Your task to perform on an android device: Go to eBay Image 0: 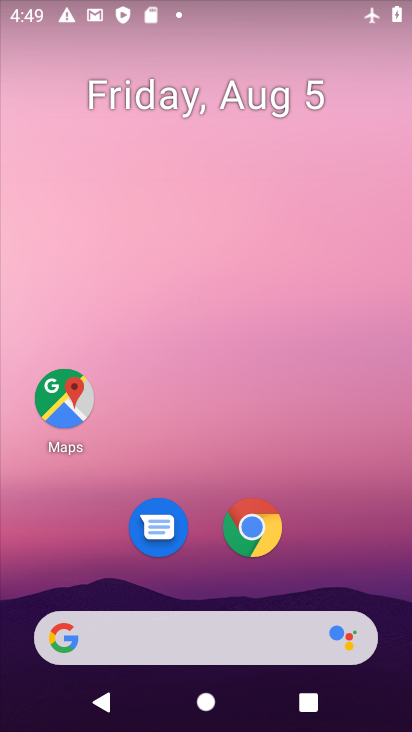
Step 0: drag from (187, 605) to (199, 258)
Your task to perform on an android device: Go to eBay Image 1: 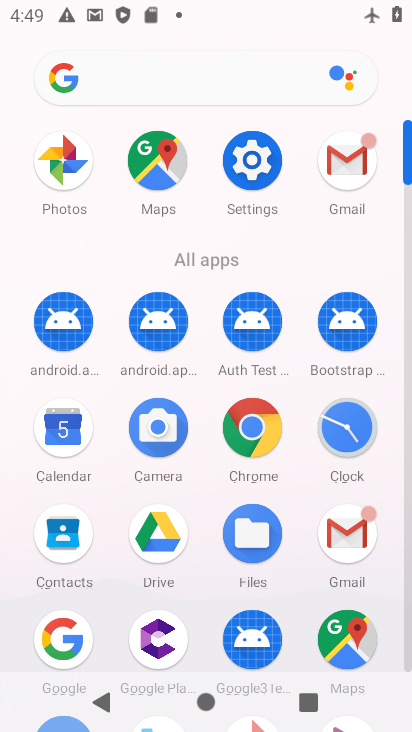
Step 1: drag from (220, 601) to (181, 176)
Your task to perform on an android device: Go to eBay Image 2: 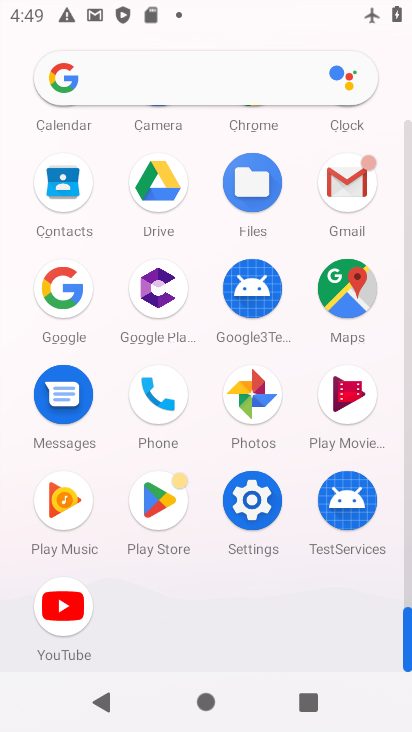
Step 2: click (150, 73)
Your task to perform on an android device: Go to eBay Image 3: 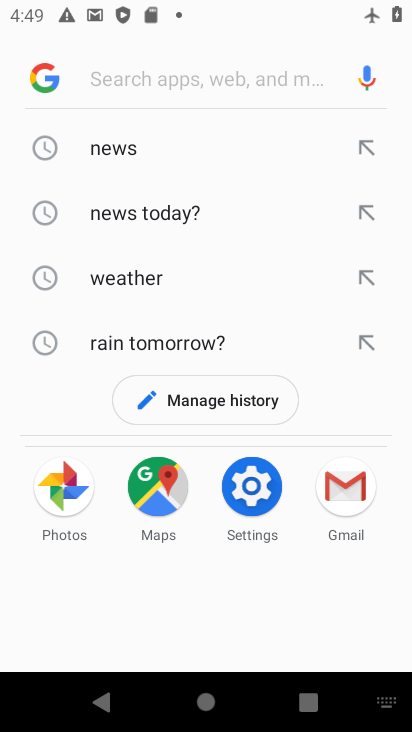
Step 3: click (186, 83)
Your task to perform on an android device: Go to eBay Image 4: 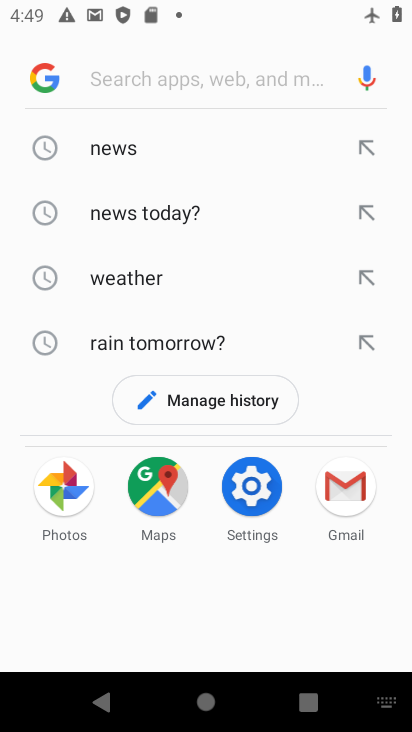
Step 4: type "eBay"
Your task to perform on an android device: Go to eBay Image 5: 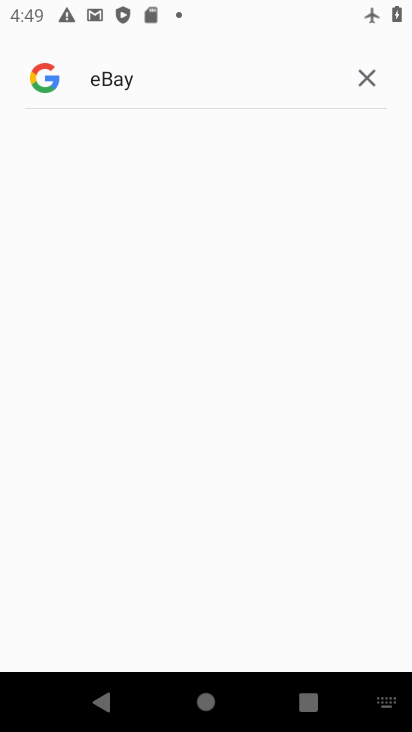
Step 5: click (128, 137)
Your task to perform on an android device: Go to eBay Image 6: 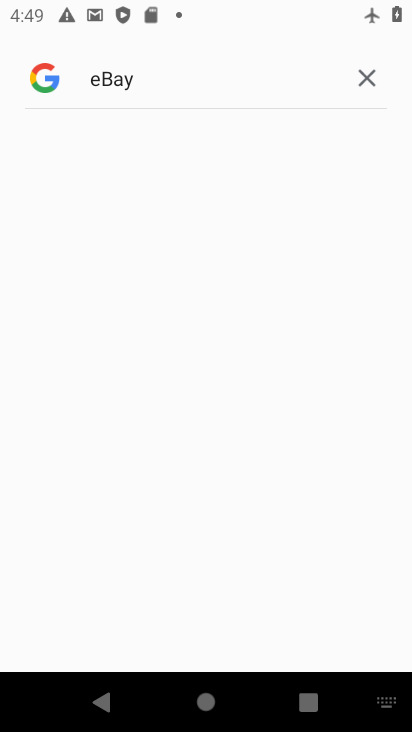
Step 6: click (128, 137)
Your task to perform on an android device: Go to eBay Image 7: 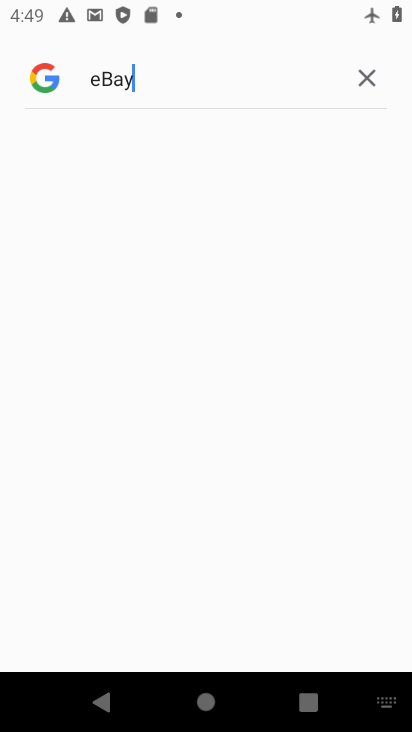
Step 7: click (128, 138)
Your task to perform on an android device: Go to eBay Image 8: 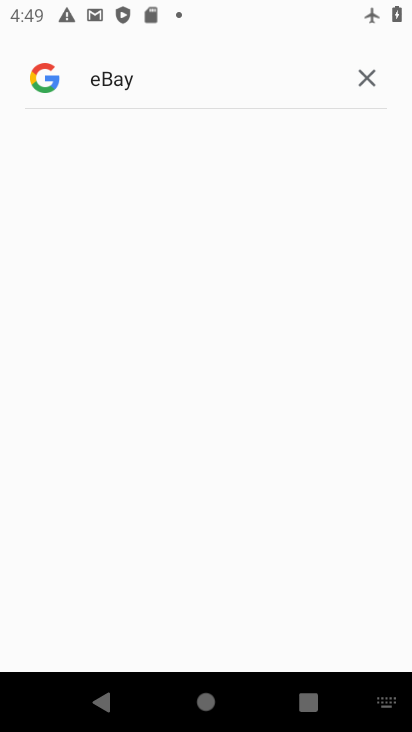
Step 8: click (169, 128)
Your task to perform on an android device: Go to eBay Image 9: 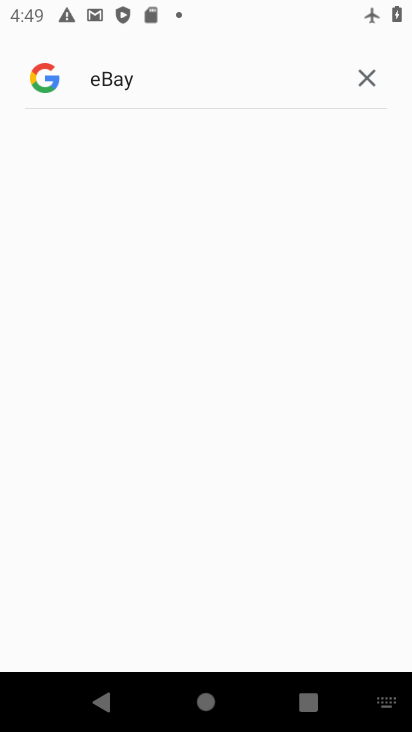
Step 9: click (168, 130)
Your task to perform on an android device: Go to eBay Image 10: 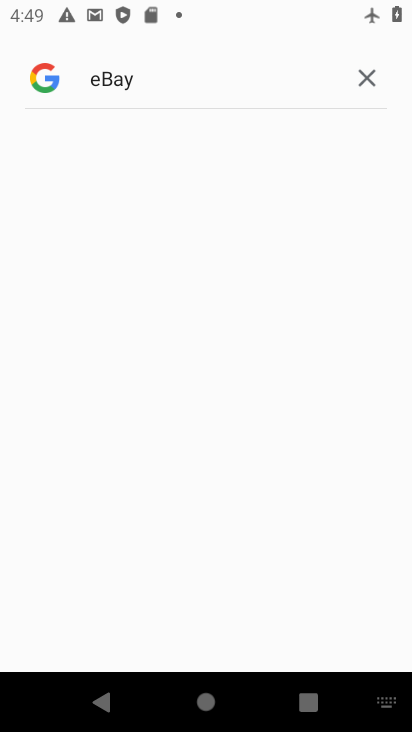
Step 10: click (168, 131)
Your task to perform on an android device: Go to eBay Image 11: 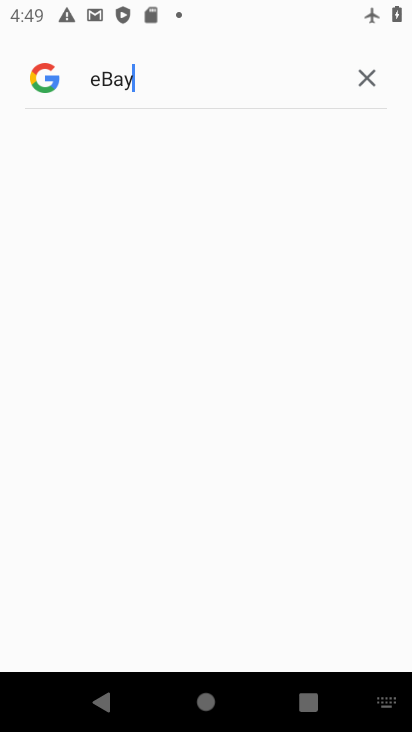
Step 11: click (168, 131)
Your task to perform on an android device: Go to eBay Image 12: 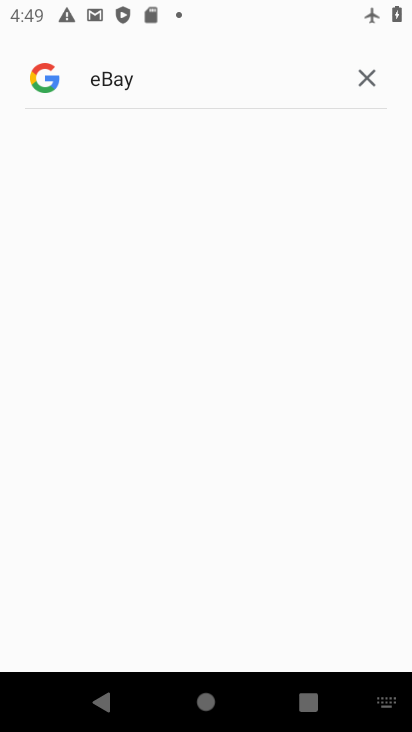
Step 12: click (168, 131)
Your task to perform on an android device: Go to eBay Image 13: 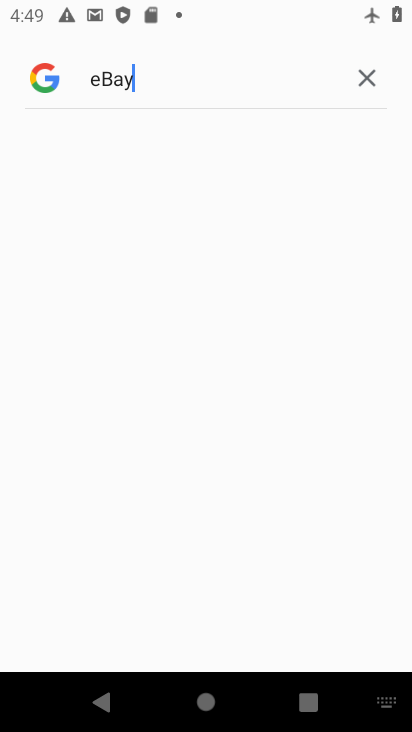
Step 13: click (167, 135)
Your task to perform on an android device: Go to eBay Image 14: 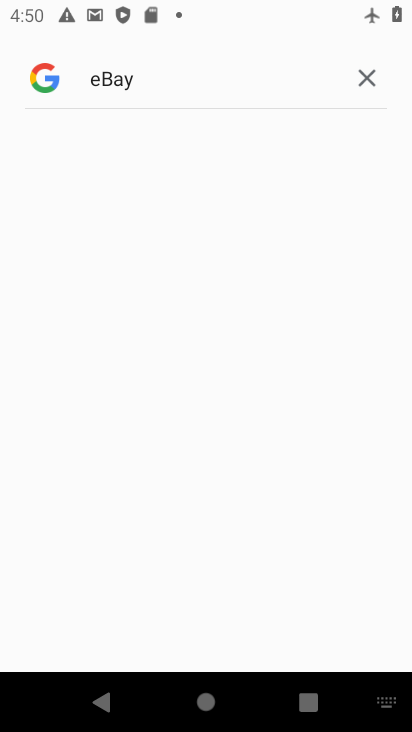
Step 14: click (166, 136)
Your task to perform on an android device: Go to eBay Image 15: 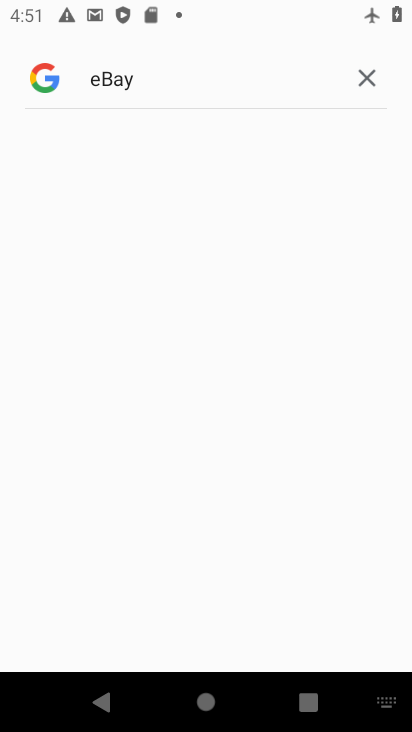
Step 15: drag from (191, 219) to (258, 645)
Your task to perform on an android device: Go to eBay Image 16: 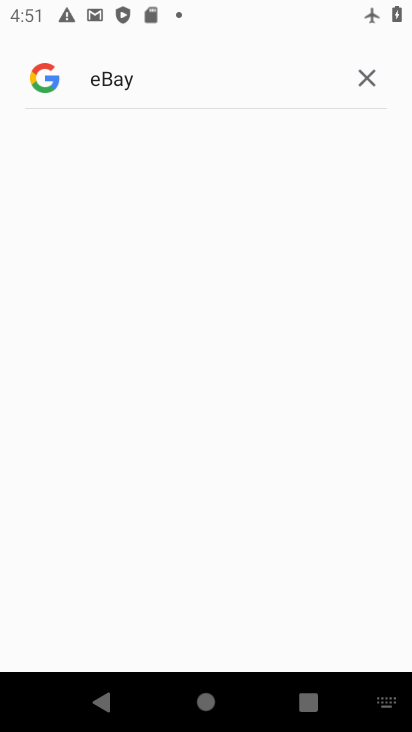
Step 16: drag from (128, 187) to (264, 485)
Your task to perform on an android device: Go to eBay Image 17: 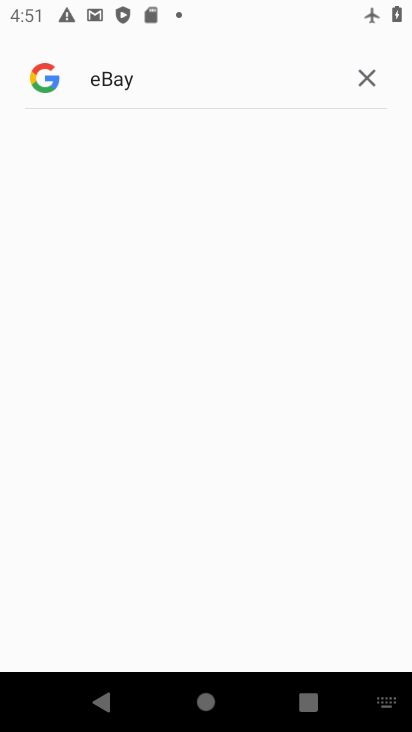
Step 17: drag from (156, 502) to (163, 271)
Your task to perform on an android device: Go to eBay Image 18: 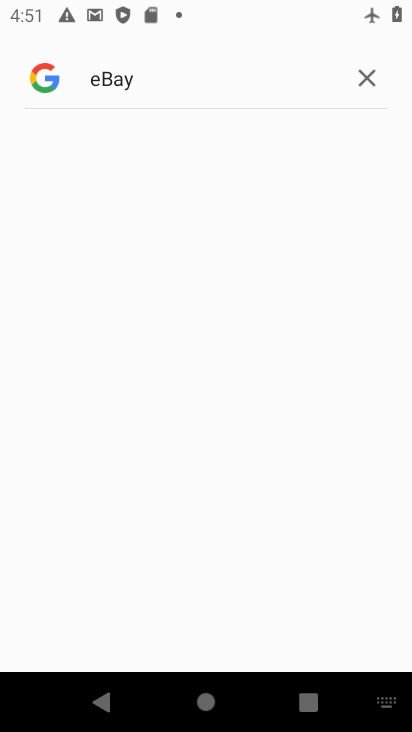
Step 18: click (171, 147)
Your task to perform on an android device: Go to eBay Image 19: 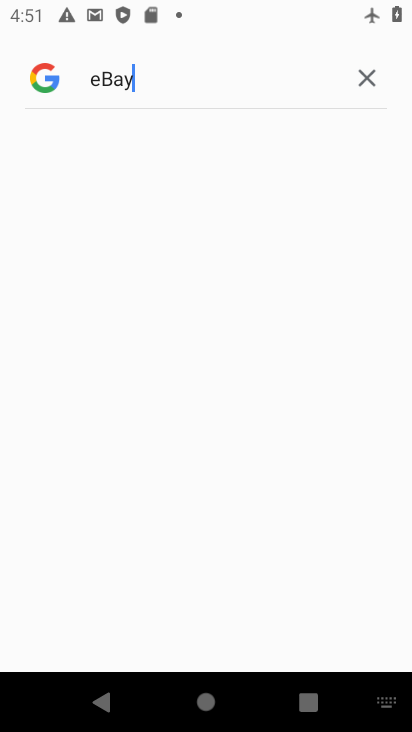
Step 19: click (178, 170)
Your task to perform on an android device: Go to eBay Image 20: 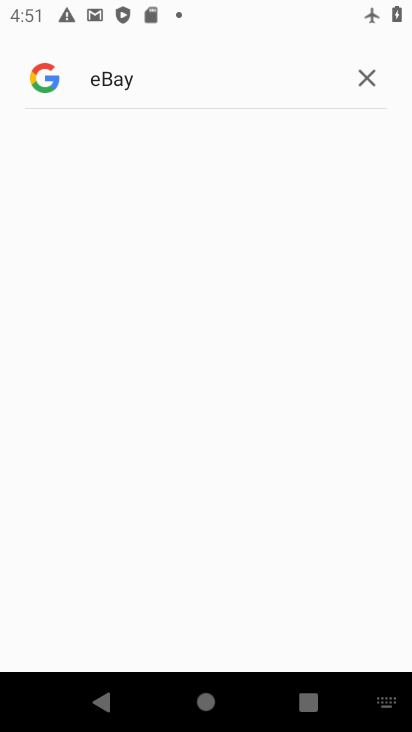
Step 20: click (178, 170)
Your task to perform on an android device: Go to eBay Image 21: 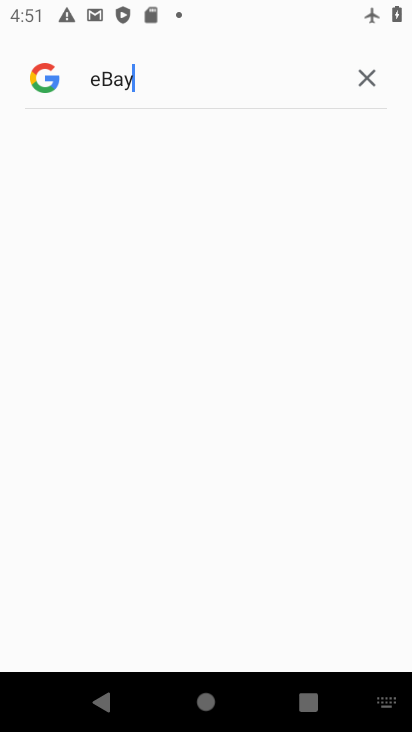
Step 21: drag from (178, 170) to (290, 511)
Your task to perform on an android device: Go to eBay Image 22: 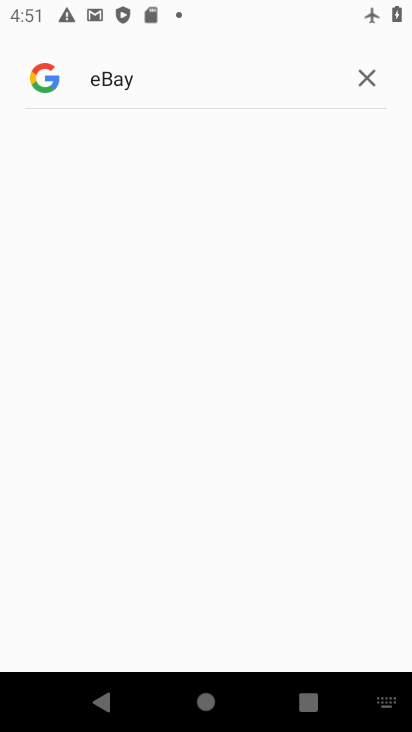
Step 22: drag from (194, 618) to (217, 282)
Your task to perform on an android device: Go to eBay Image 23: 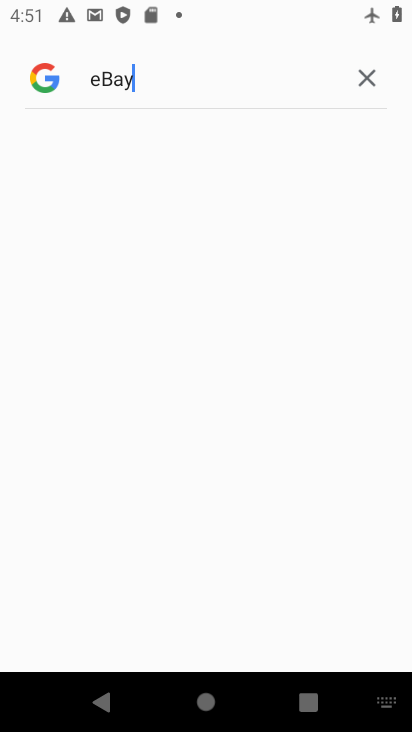
Step 23: click (185, 174)
Your task to perform on an android device: Go to eBay Image 24: 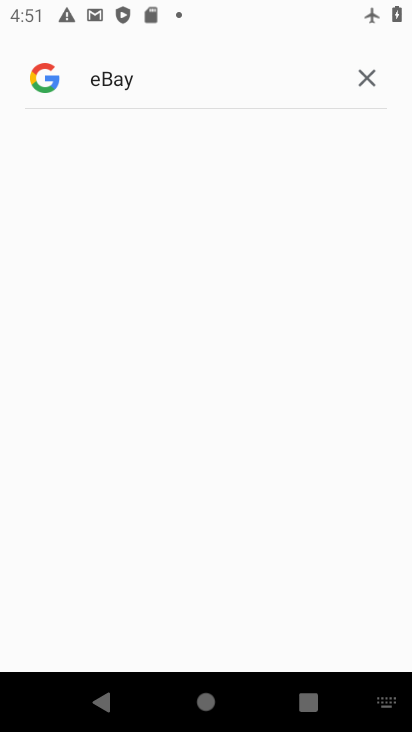
Step 24: click (186, 157)
Your task to perform on an android device: Go to eBay Image 25: 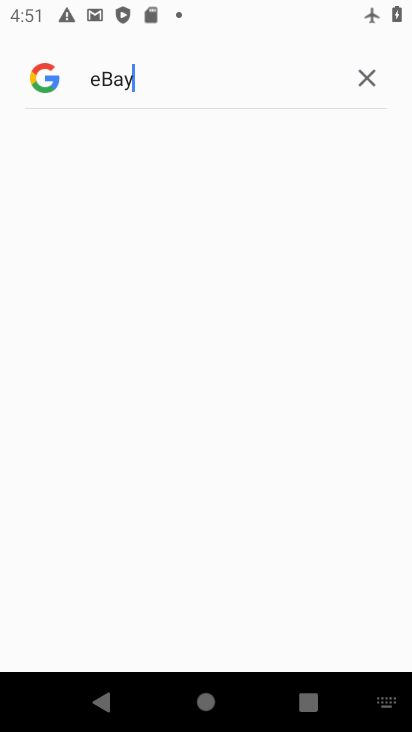
Step 25: click (188, 153)
Your task to perform on an android device: Go to eBay Image 26: 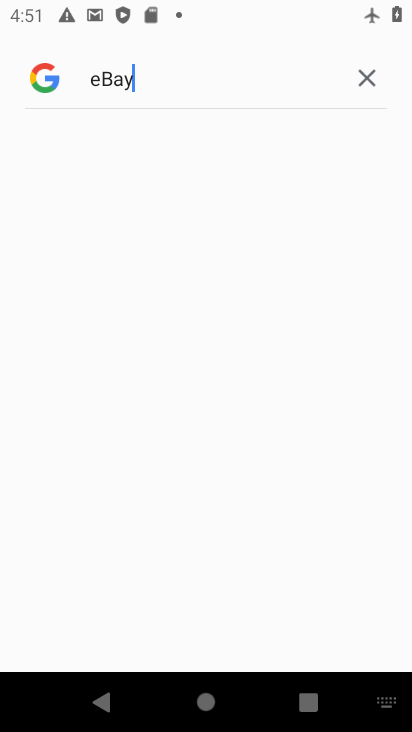
Step 26: click (188, 153)
Your task to perform on an android device: Go to eBay Image 27: 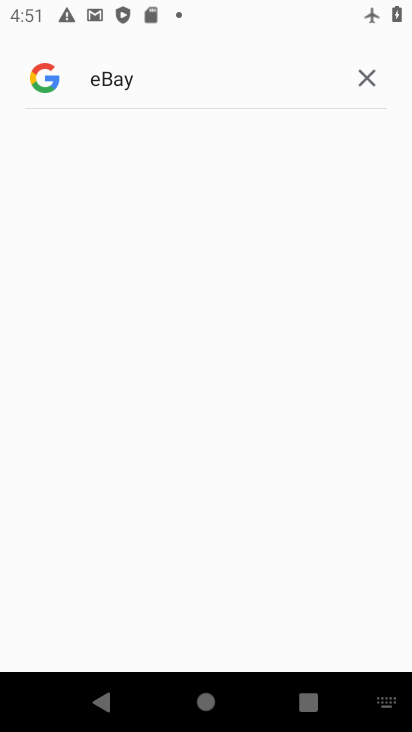
Step 27: click (182, 137)
Your task to perform on an android device: Go to eBay Image 28: 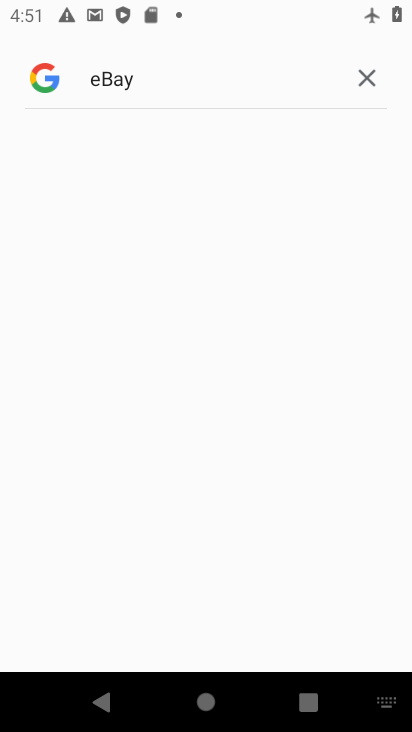
Step 28: click (115, 117)
Your task to perform on an android device: Go to eBay Image 29: 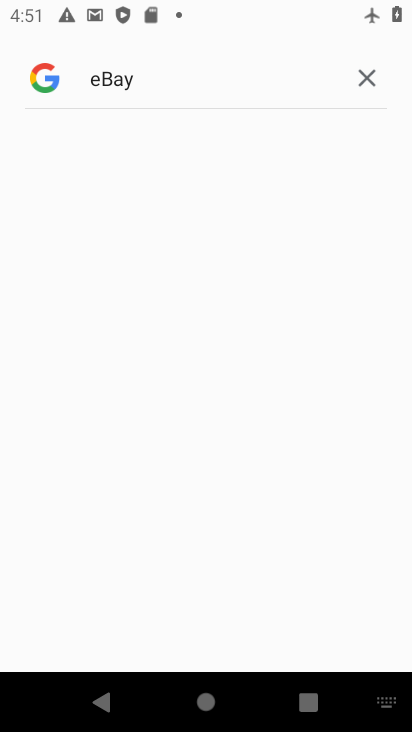
Step 29: click (114, 118)
Your task to perform on an android device: Go to eBay Image 30: 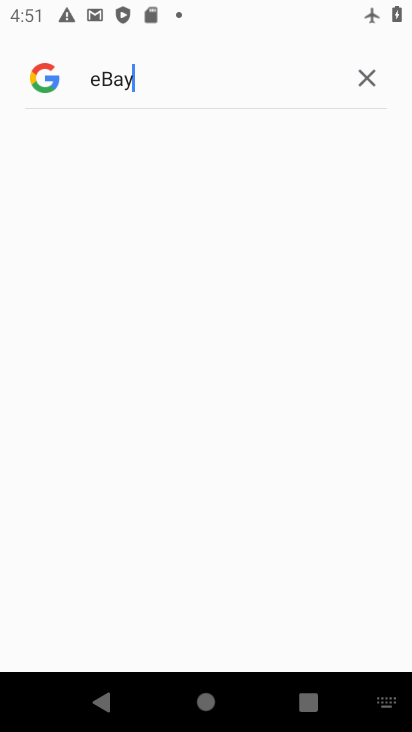
Step 30: click (114, 118)
Your task to perform on an android device: Go to eBay Image 31: 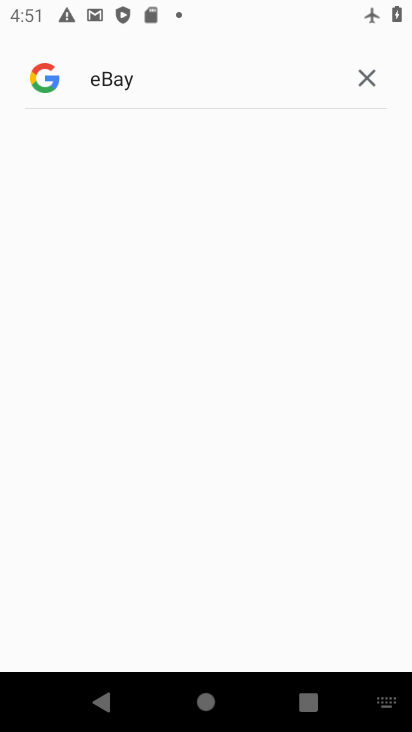
Step 31: click (114, 118)
Your task to perform on an android device: Go to eBay Image 32: 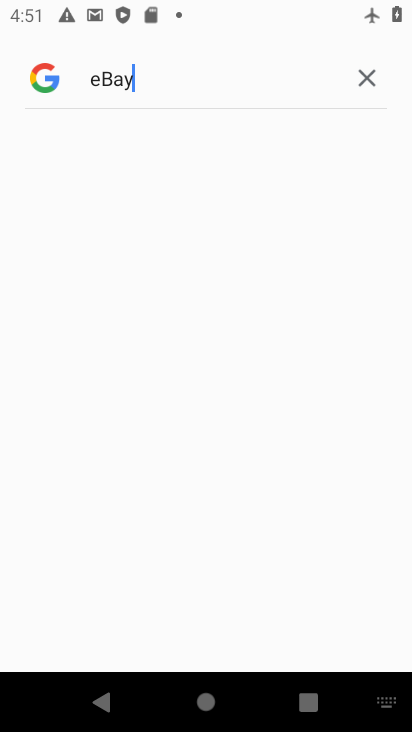
Step 32: click (172, 154)
Your task to perform on an android device: Go to eBay Image 33: 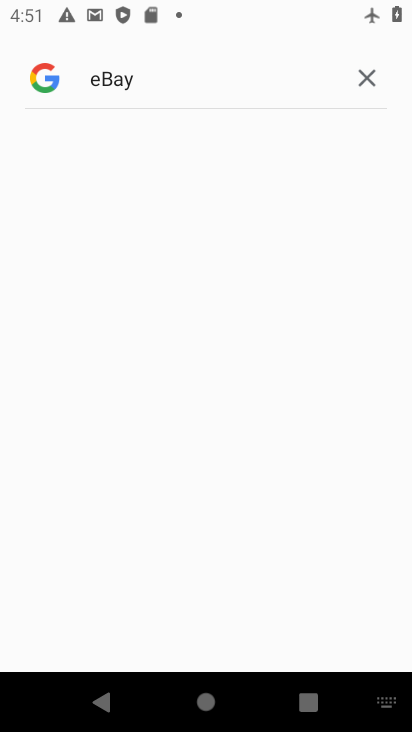
Step 33: click (162, 146)
Your task to perform on an android device: Go to eBay Image 34: 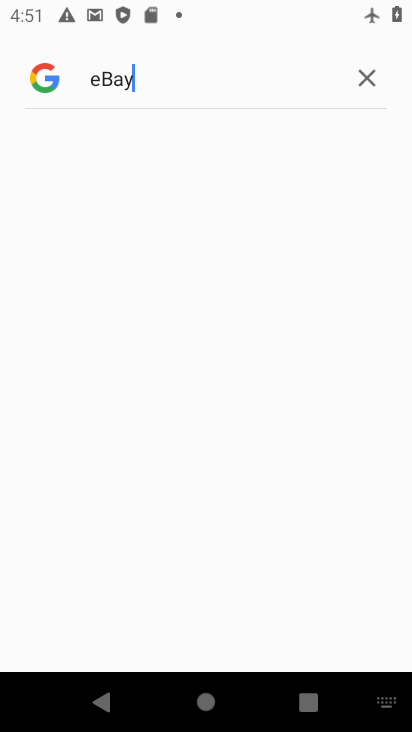
Step 34: click (156, 142)
Your task to perform on an android device: Go to eBay Image 35: 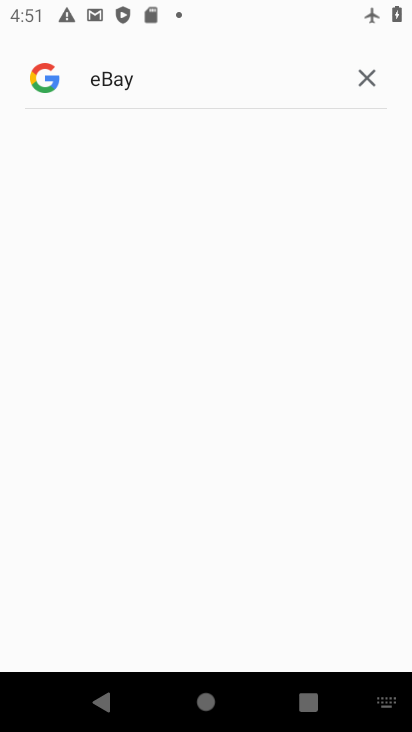
Step 35: click (137, 136)
Your task to perform on an android device: Go to eBay Image 36: 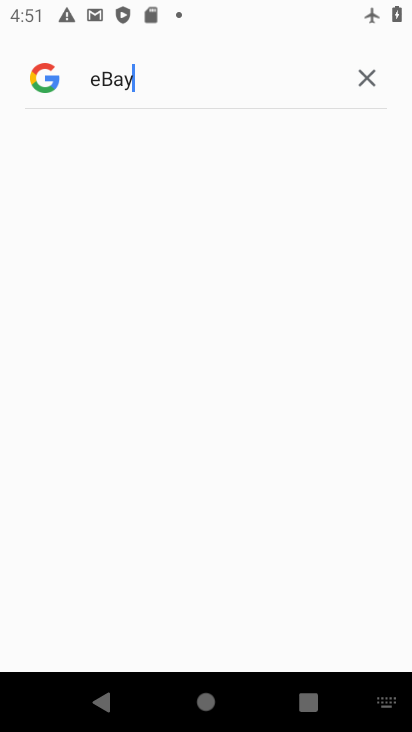
Step 36: click (137, 136)
Your task to perform on an android device: Go to eBay Image 37: 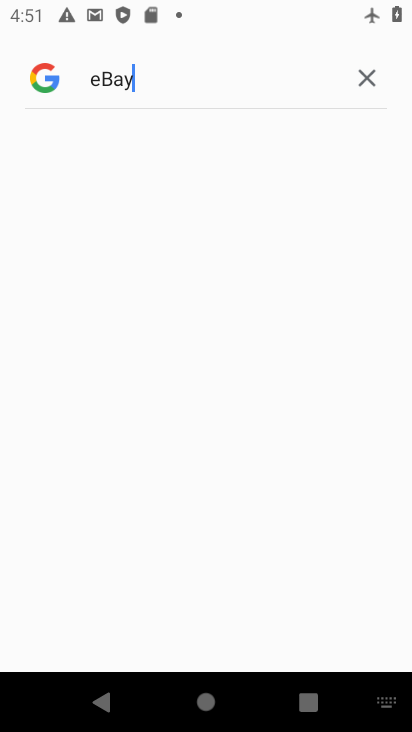
Step 37: click (137, 136)
Your task to perform on an android device: Go to eBay Image 38: 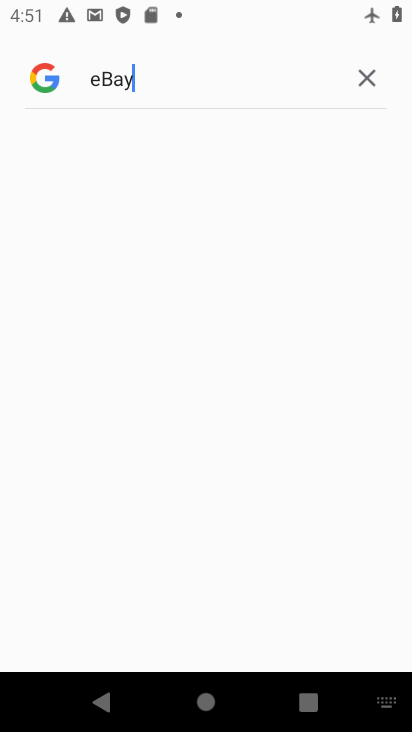
Step 38: click (129, 83)
Your task to perform on an android device: Go to eBay Image 39: 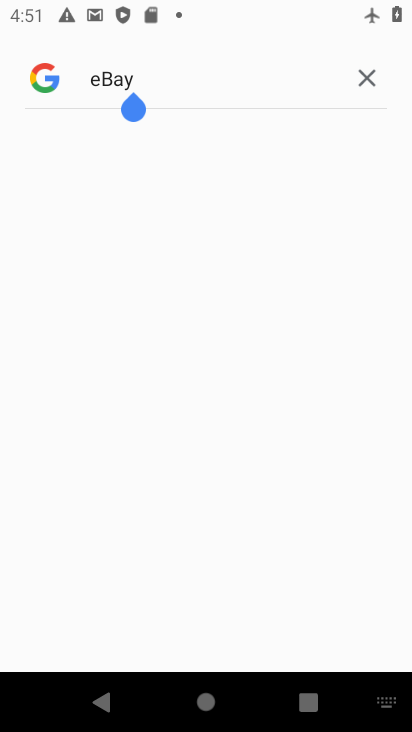
Step 39: click (170, 160)
Your task to perform on an android device: Go to eBay Image 40: 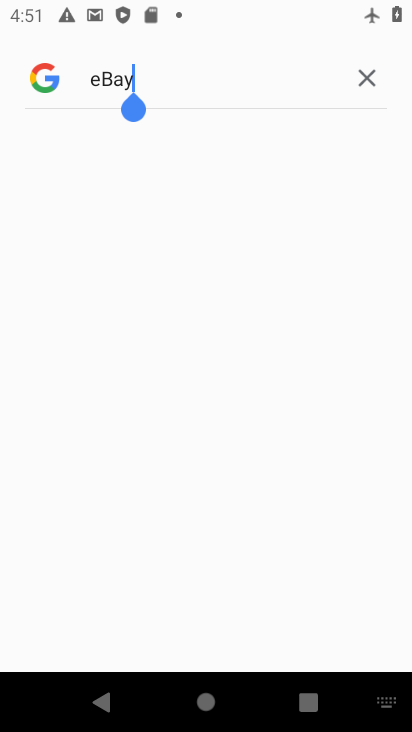
Step 40: click (170, 160)
Your task to perform on an android device: Go to eBay Image 41: 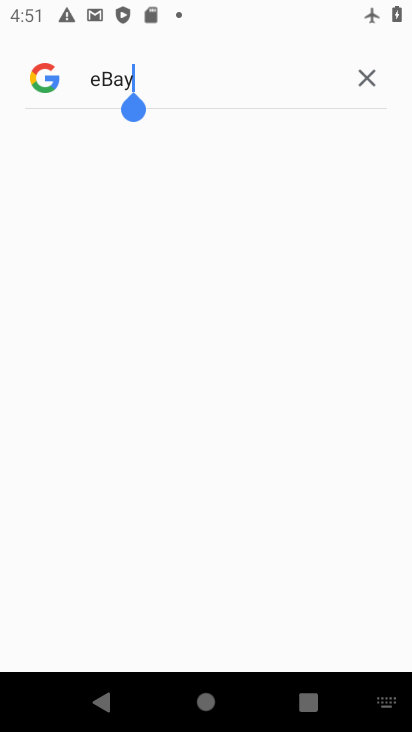
Step 41: click (152, 143)
Your task to perform on an android device: Go to eBay Image 42: 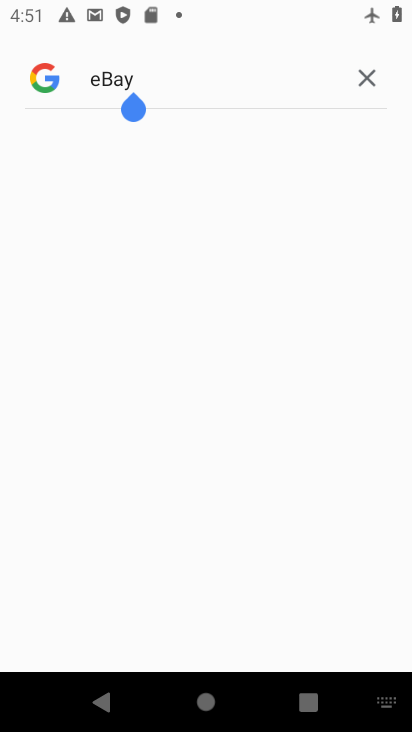
Step 42: click (151, 144)
Your task to perform on an android device: Go to eBay Image 43: 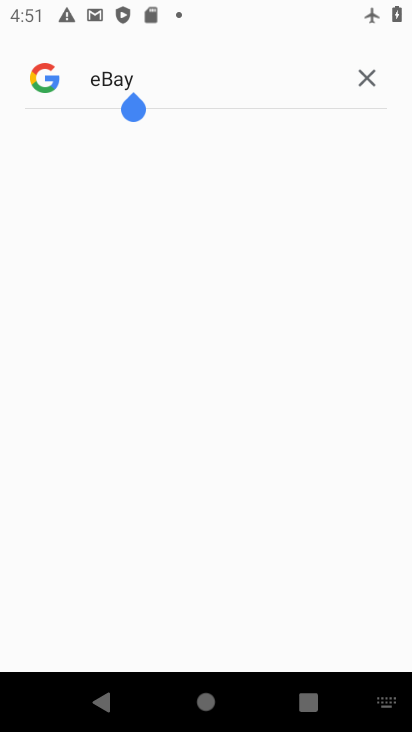
Step 43: click (151, 144)
Your task to perform on an android device: Go to eBay Image 44: 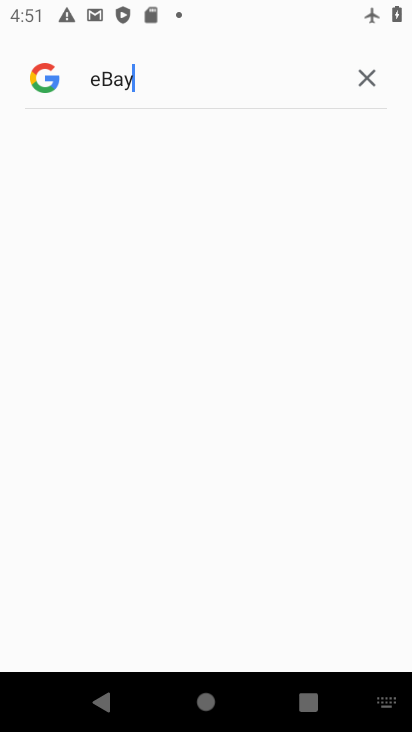
Step 44: click (360, 77)
Your task to perform on an android device: Go to eBay Image 45: 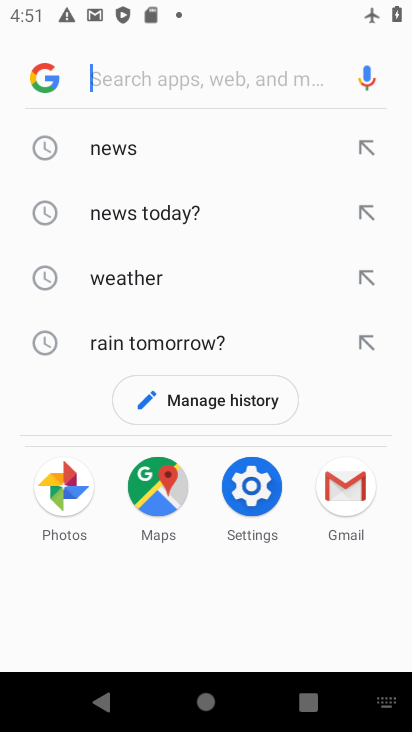
Step 45: click (181, 86)
Your task to perform on an android device: Go to eBay Image 46: 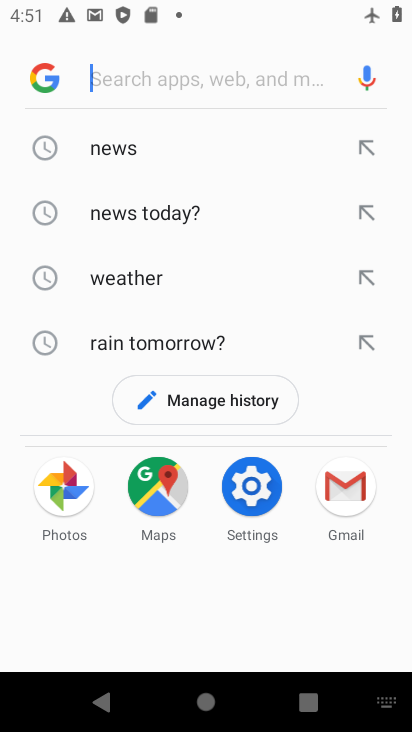
Step 46: type "eBay"
Your task to perform on an android device: Go to eBay Image 47: 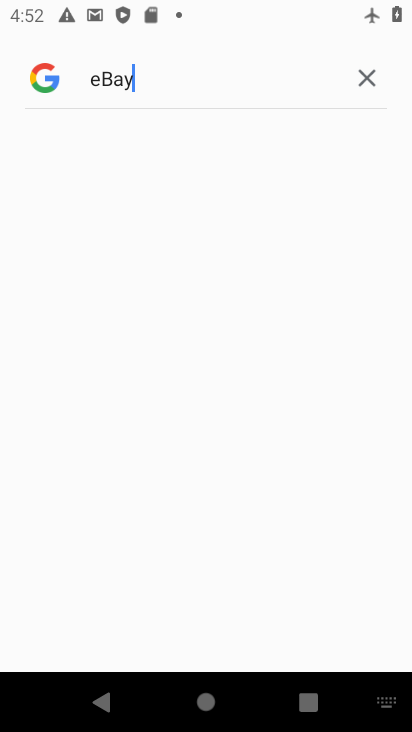
Step 47: click (120, 150)
Your task to perform on an android device: Go to eBay Image 48: 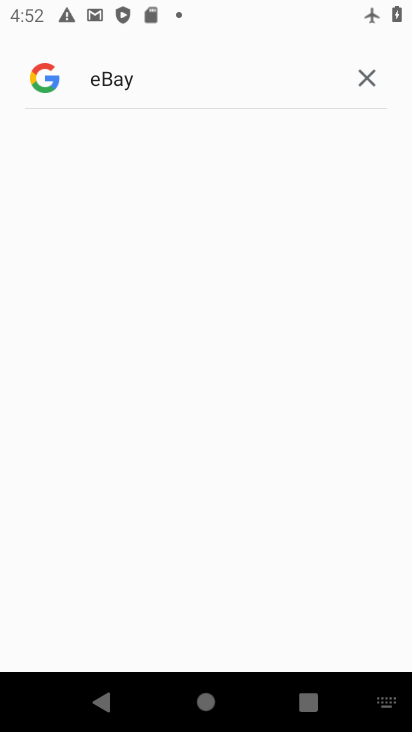
Step 48: click (120, 150)
Your task to perform on an android device: Go to eBay Image 49: 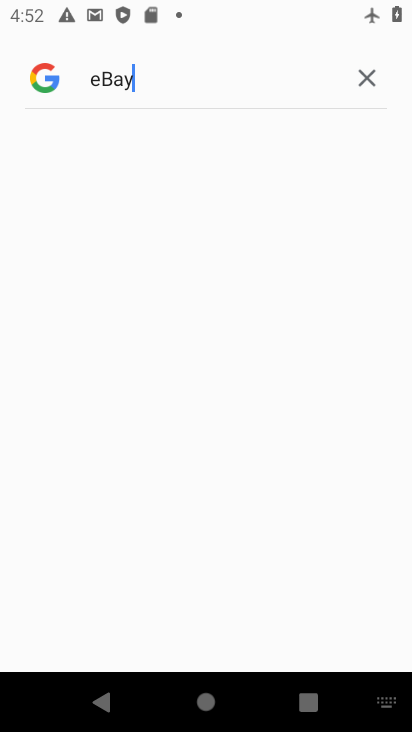
Step 49: click (120, 150)
Your task to perform on an android device: Go to eBay Image 50: 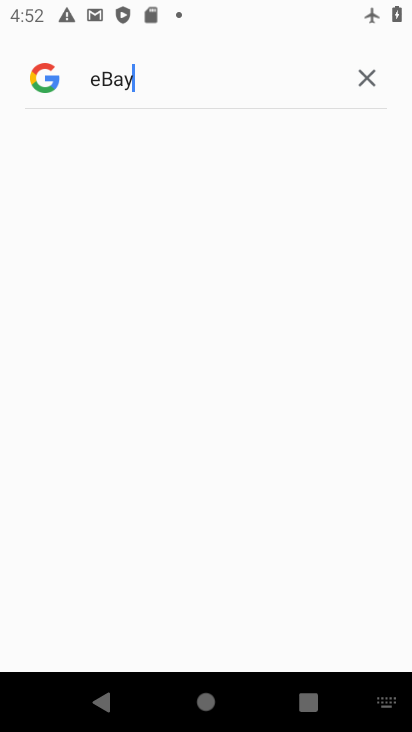
Step 50: click (119, 149)
Your task to perform on an android device: Go to eBay Image 51: 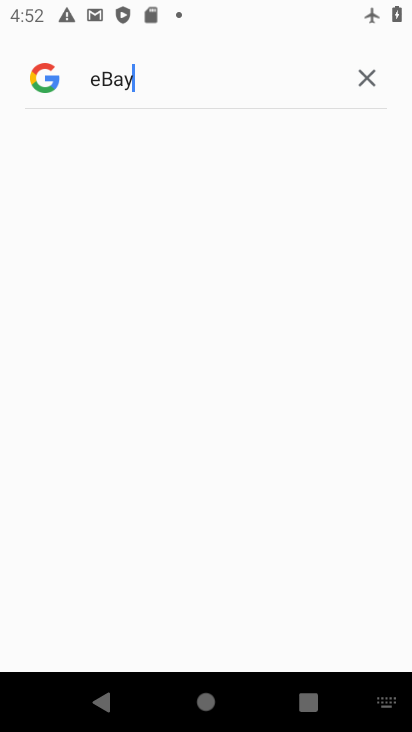
Step 51: click (115, 143)
Your task to perform on an android device: Go to eBay Image 52: 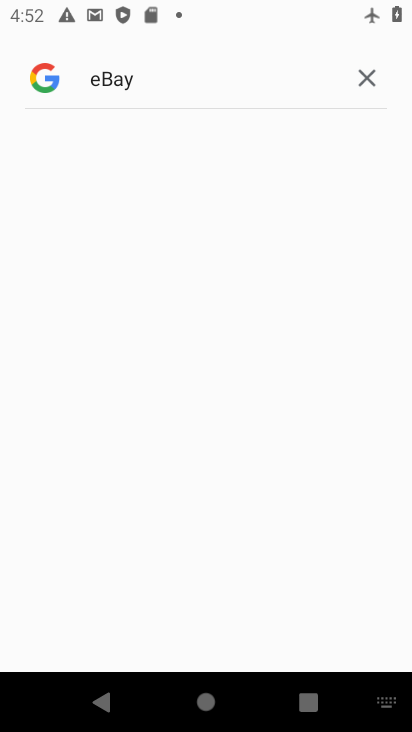
Step 52: click (115, 142)
Your task to perform on an android device: Go to eBay Image 53: 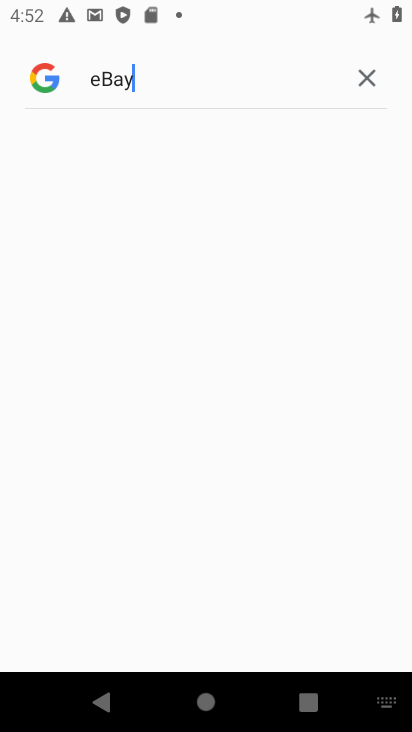
Step 53: click (115, 142)
Your task to perform on an android device: Go to eBay Image 54: 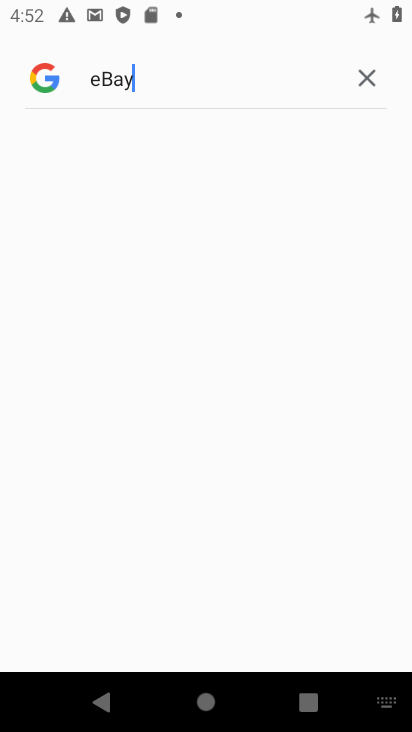
Step 54: click (114, 141)
Your task to perform on an android device: Go to eBay Image 55: 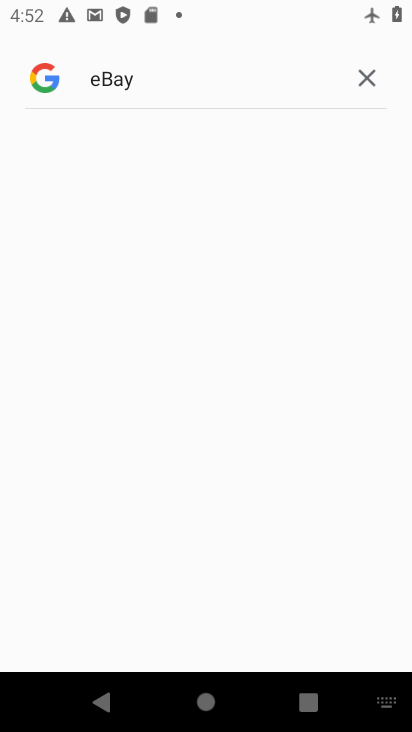
Step 55: click (114, 141)
Your task to perform on an android device: Go to eBay Image 56: 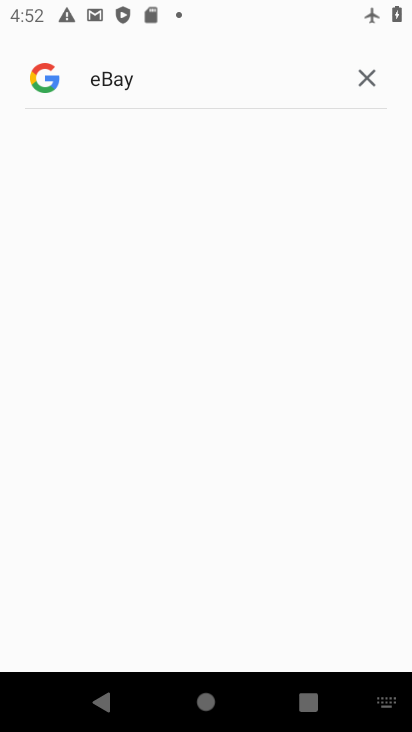
Step 56: click (114, 141)
Your task to perform on an android device: Go to eBay Image 57: 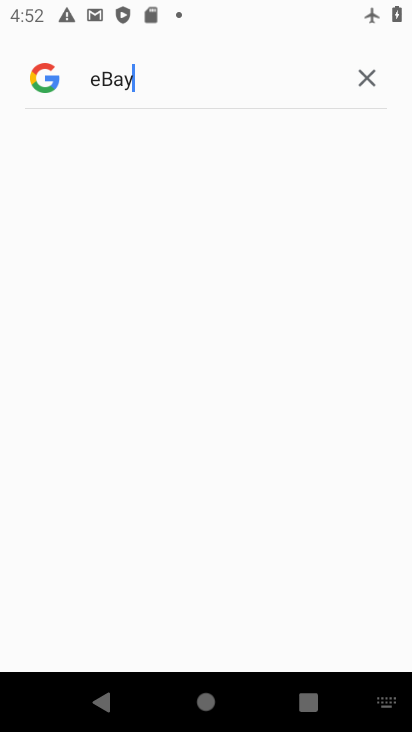
Step 57: click (113, 140)
Your task to perform on an android device: Go to eBay Image 58: 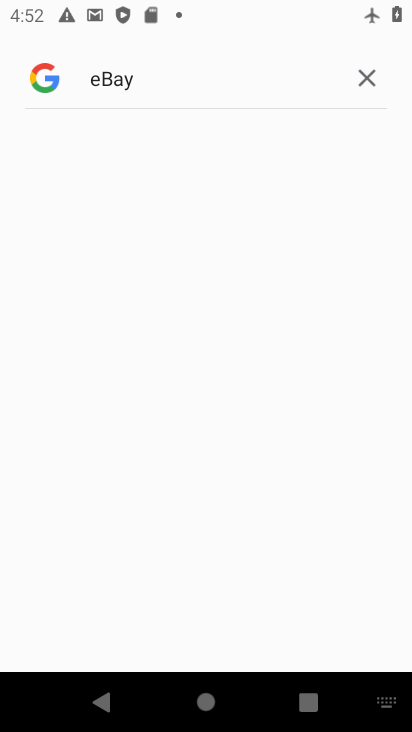
Step 58: click (112, 140)
Your task to perform on an android device: Go to eBay Image 59: 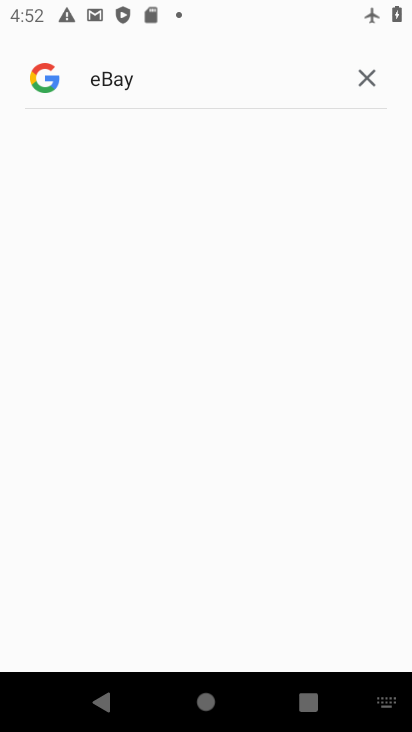
Step 59: click (112, 140)
Your task to perform on an android device: Go to eBay Image 60: 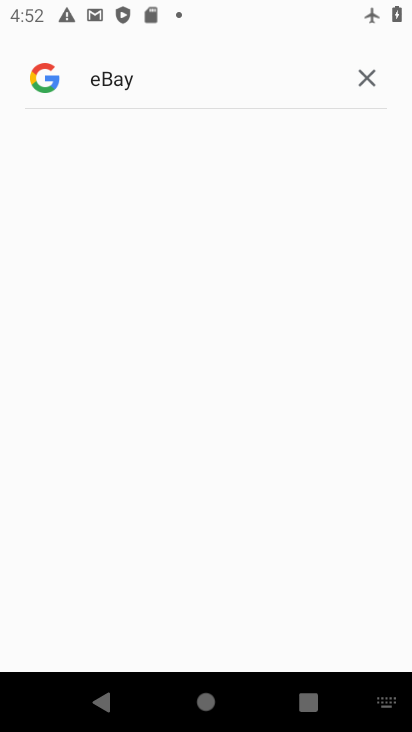
Step 60: drag from (198, 562) to (201, 261)
Your task to perform on an android device: Go to eBay Image 61: 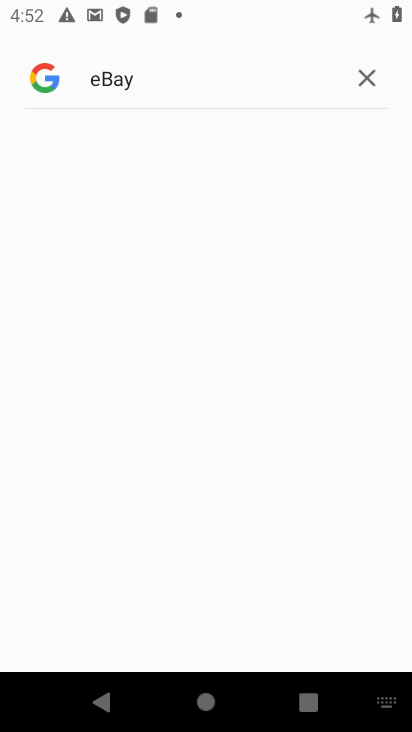
Step 61: click (375, 72)
Your task to perform on an android device: Go to eBay Image 62: 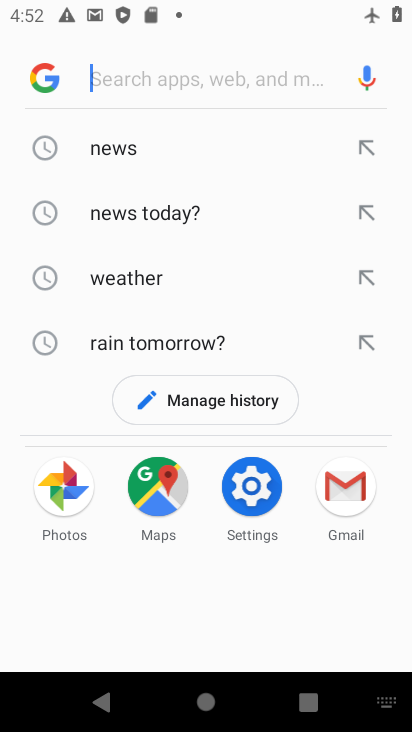
Step 62: press back button
Your task to perform on an android device: Go to eBay Image 63: 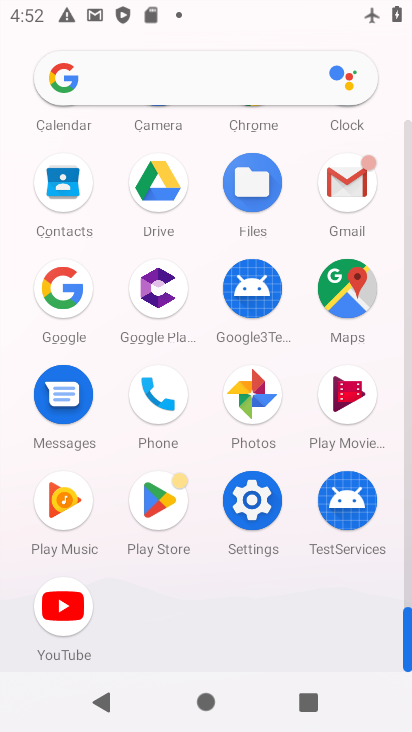
Step 63: click (124, 70)
Your task to perform on an android device: Go to eBay Image 64: 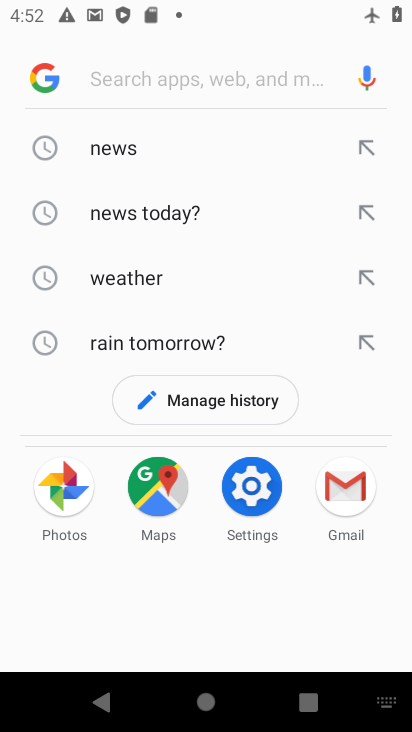
Step 64: task complete